Your task to perform on an android device: change timer sound Image 0: 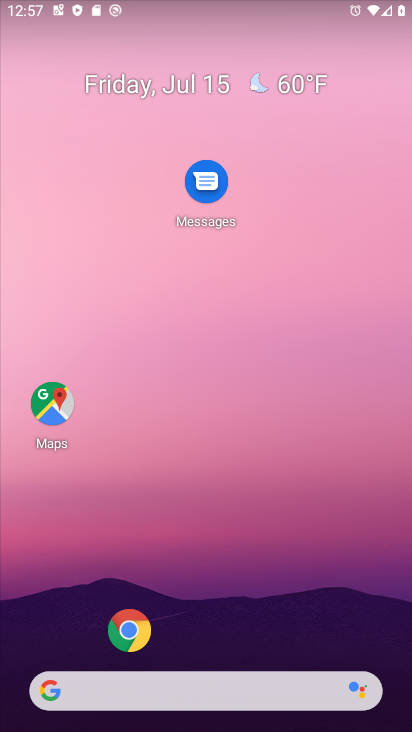
Step 0: drag from (172, 187) to (190, 104)
Your task to perform on an android device: change timer sound Image 1: 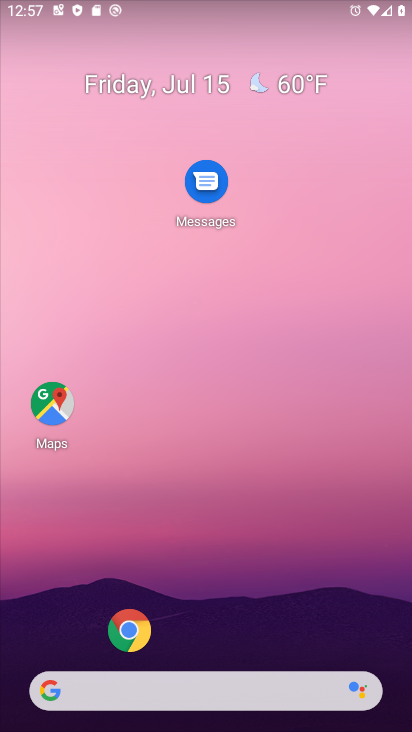
Step 1: drag from (47, 610) to (230, 187)
Your task to perform on an android device: change timer sound Image 2: 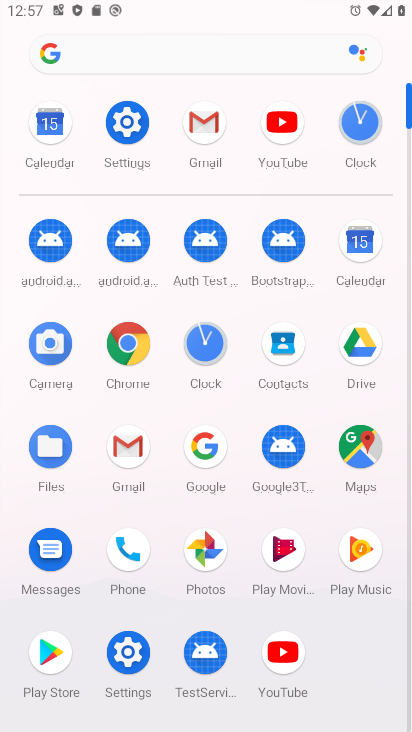
Step 2: click (204, 346)
Your task to perform on an android device: change timer sound Image 3: 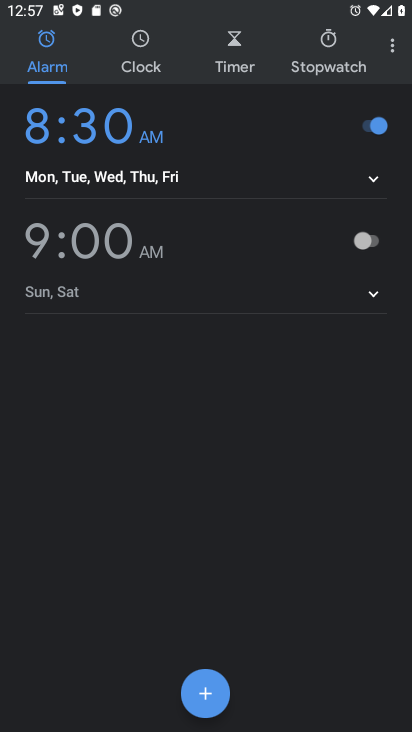
Step 3: click (245, 64)
Your task to perform on an android device: change timer sound Image 4: 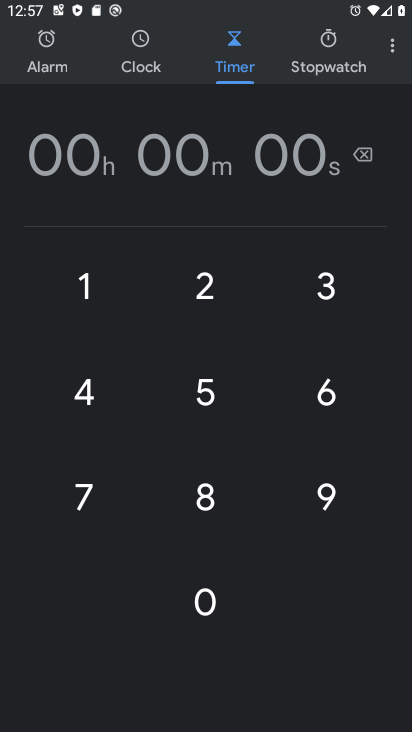
Step 4: click (392, 33)
Your task to perform on an android device: change timer sound Image 5: 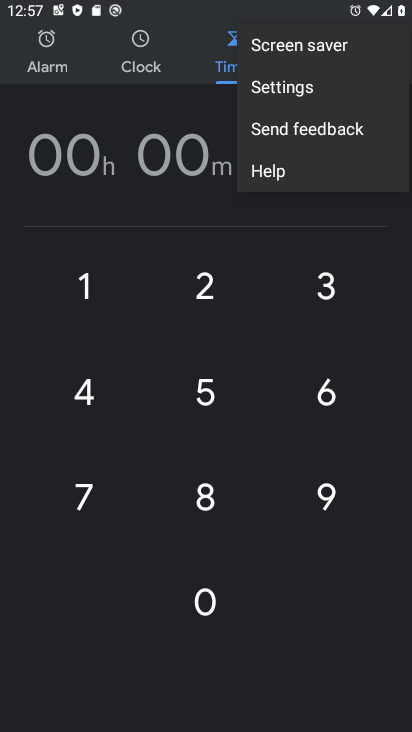
Step 5: click (273, 81)
Your task to perform on an android device: change timer sound Image 6: 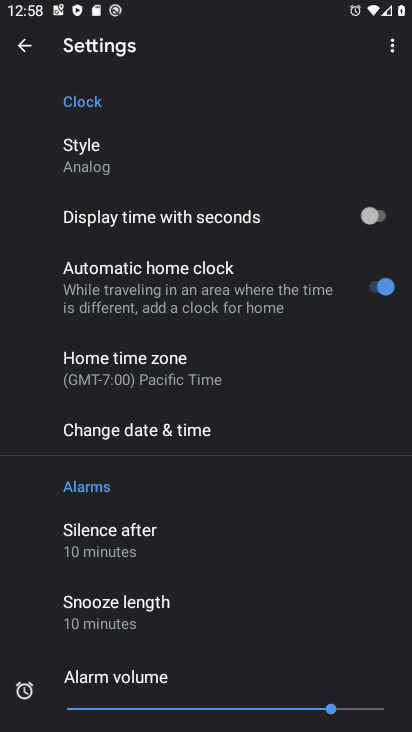
Step 6: drag from (198, 646) to (238, 309)
Your task to perform on an android device: change timer sound Image 7: 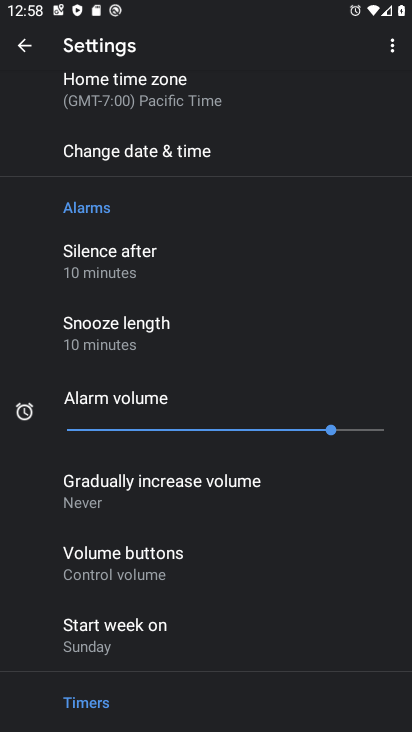
Step 7: drag from (217, 574) to (261, 332)
Your task to perform on an android device: change timer sound Image 8: 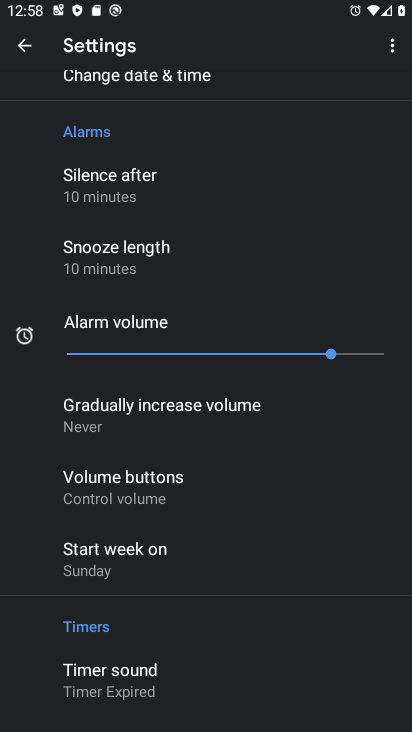
Step 8: click (140, 679)
Your task to perform on an android device: change timer sound Image 9: 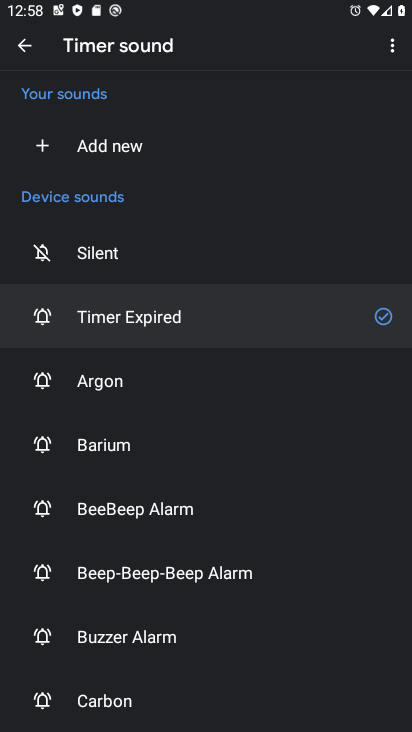
Step 9: click (108, 384)
Your task to perform on an android device: change timer sound Image 10: 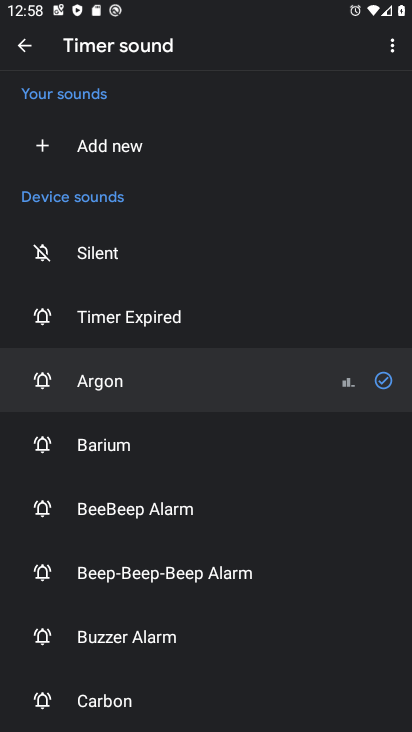
Step 10: task complete